Your task to perform on an android device: see sites visited before in the chrome app Image 0: 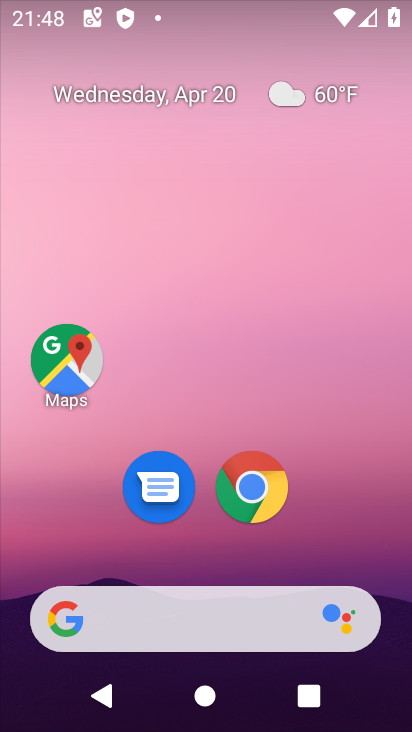
Step 0: click (278, 473)
Your task to perform on an android device: see sites visited before in the chrome app Image 1: 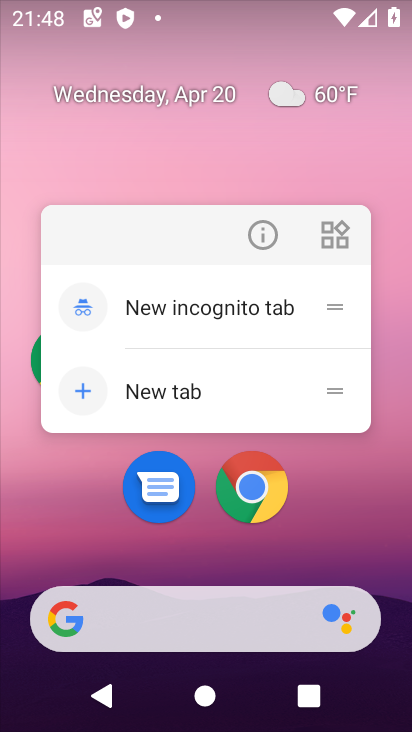
Step 1: click (250, 233)
Your task to perform on an android device: see sites visited before in the chrome app Image 2: 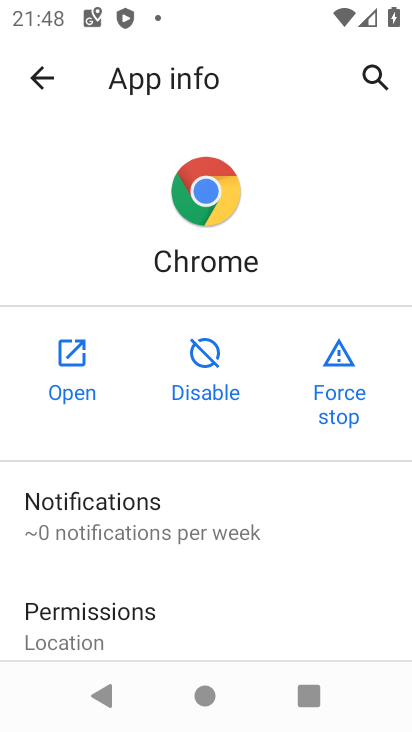
Step 2: click (88, 363)
Your task to perform on an android device: see sites visited before in the chrome app Image 3: 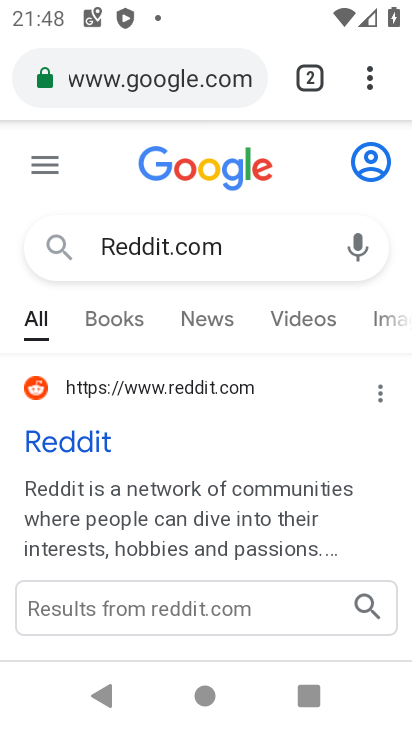
Step 3: click (374, 79)
Your task to perform on an android device: see sites visited before in the chrome app Image 4: 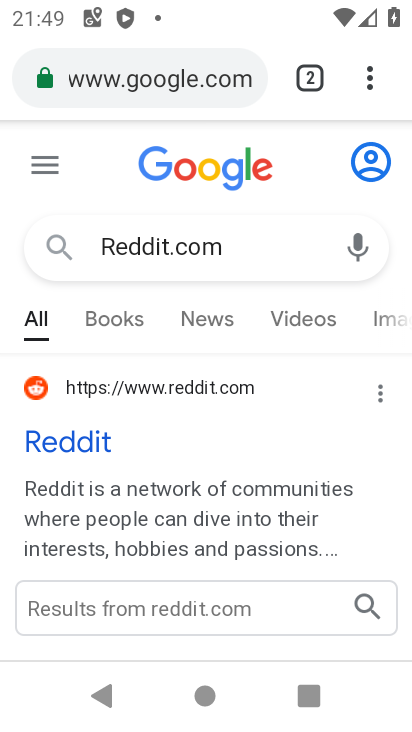
Step 4: click (369, 79)
Your task to perform on an android device: see sites visited before in the chrome app Image 5: 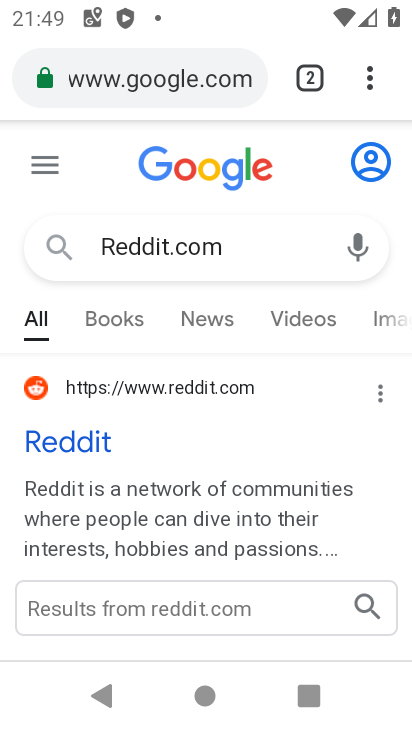
Step 5: click (368, 78)
Your task to perform on an android device: see sites visited before in the chrome app Image 6: 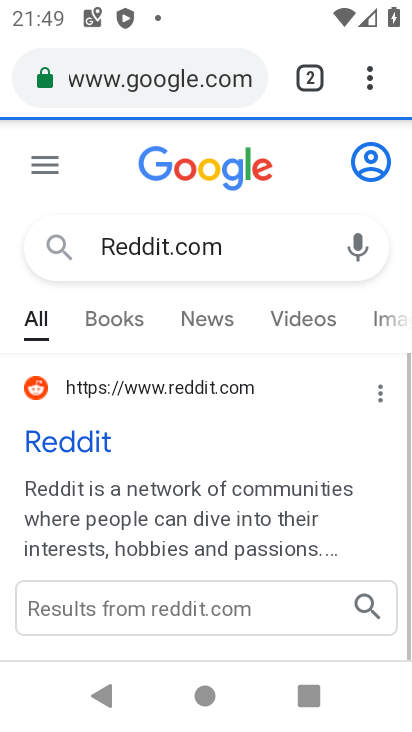
Step 6: click (368, 78)
Your task to perform on an android device: see sites visited before in the chrome app Image 7: 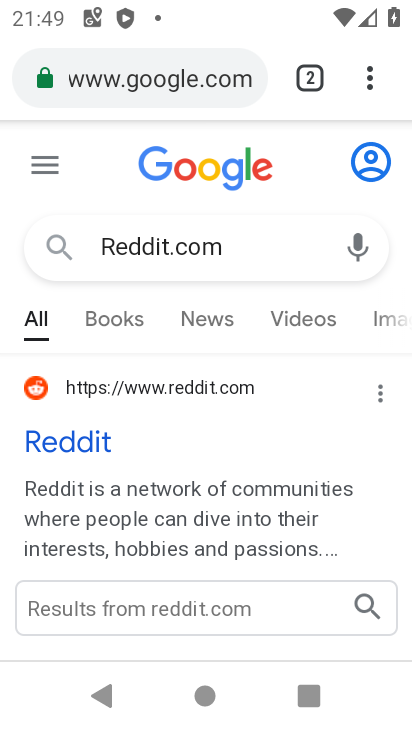
Step 7: click (373, 77)
Your task to perform on an android device: see sites visited before in the chrome app Image 8: 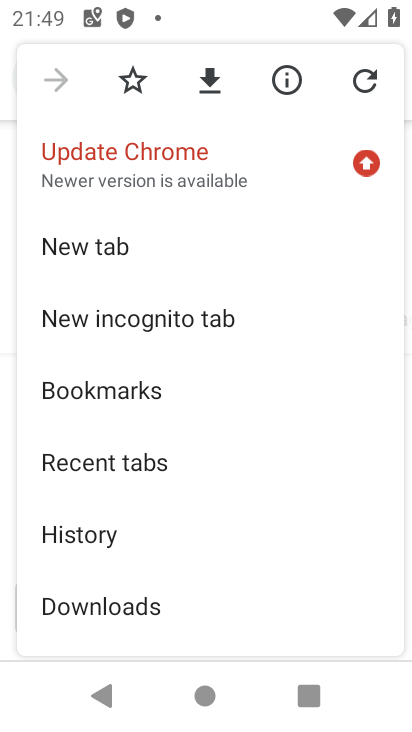
Step 8: press back button
Your task to perform on an android device: see sites visited before in the chrome app Image 9: 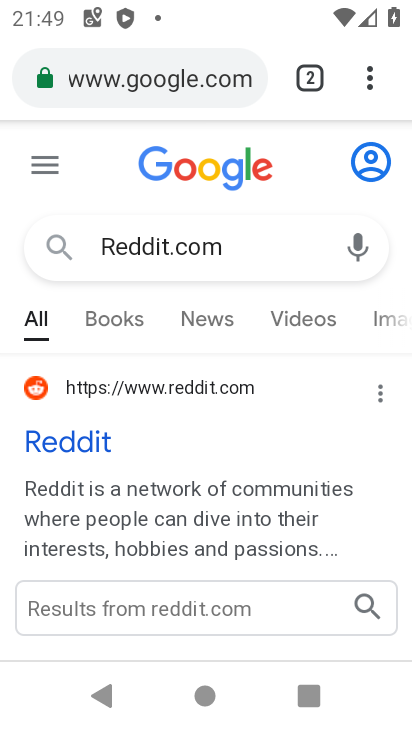
Step 9: click (315, 83)
Your task to perform on an android device: see sites visited before in the chrome app Image 10: 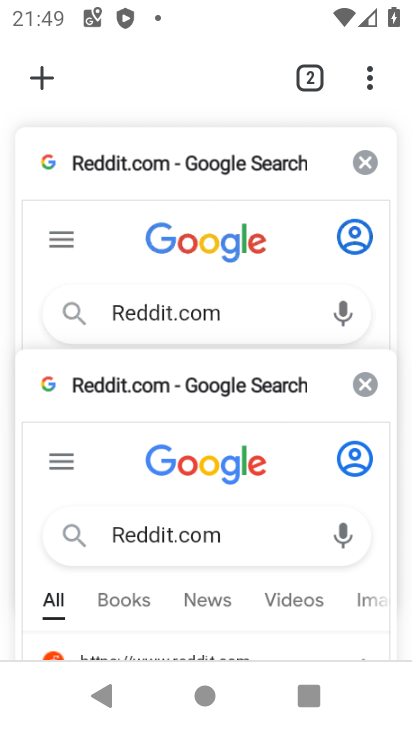
Step 10: click (361, 171)
Your task to perform on an android device: see sites visited before in the chrome app Image 11: 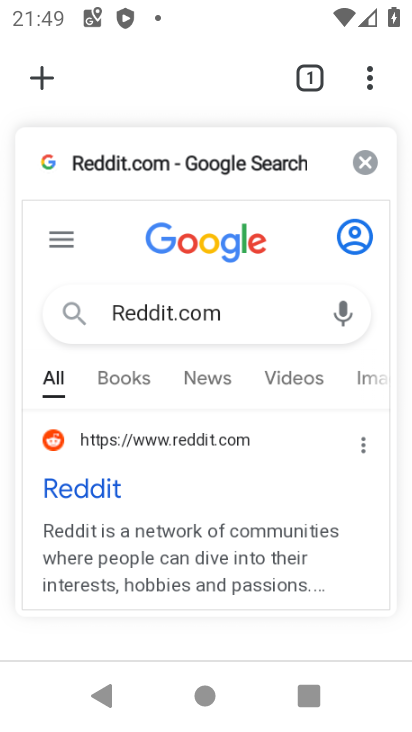
Step 11: click (46, 72)
Your task to perform on an android device: see sites visited before in the chrome app Image 12: 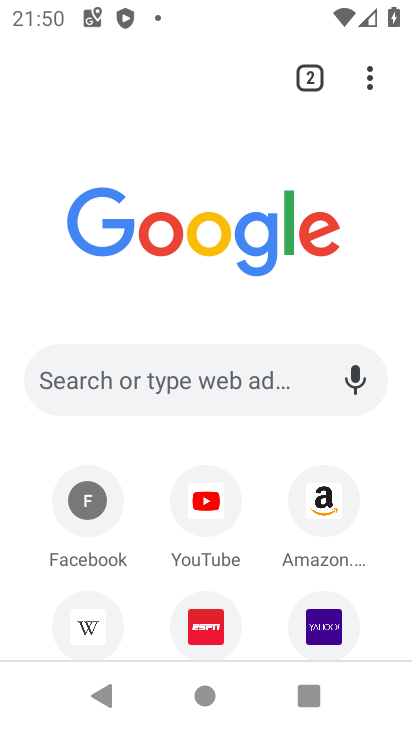
Step 12: task complete